Your task to perform on an android device: Open the phone app and click the voicemail tab. Image 0: 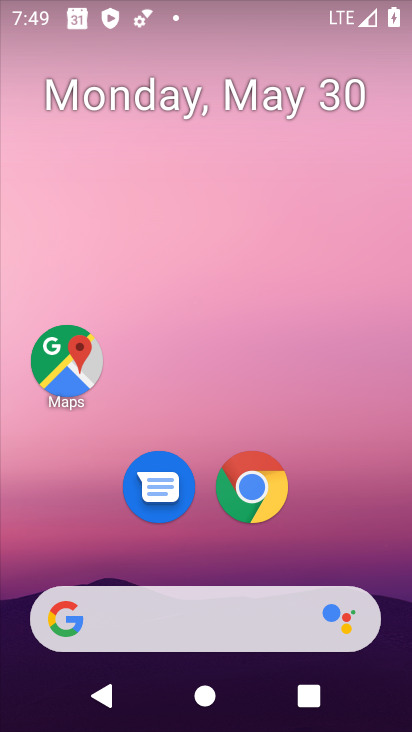
Step 0: click (340, 417)
Your task to perform on an android device: Open the phone app and click the voicemail tab. Image 1: 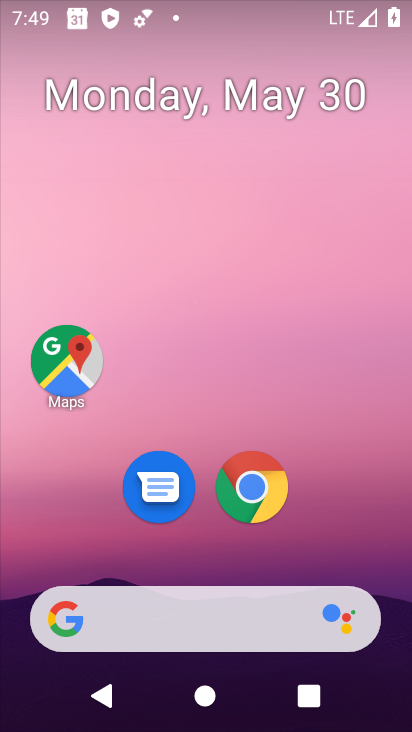
Step 1: drag from (375, 699) to (303, 134)
Your task to perform on an android device: Open the phone app and click the voicemail tab. Image 2: 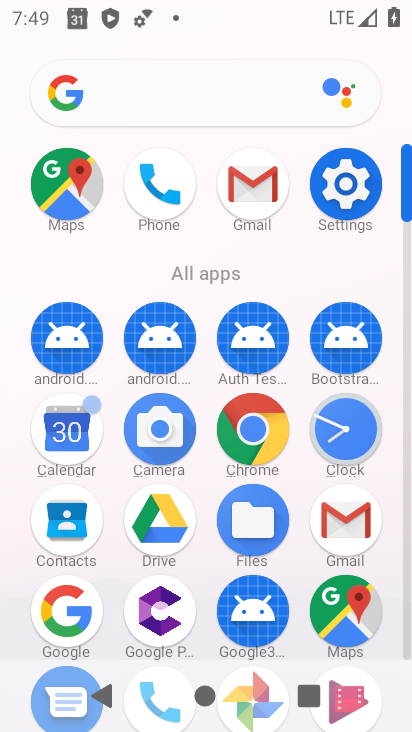
Step 2: click (151, 189)
Your task to perform on an android device: Open the phone app and click the voicemail tab. Image 3: 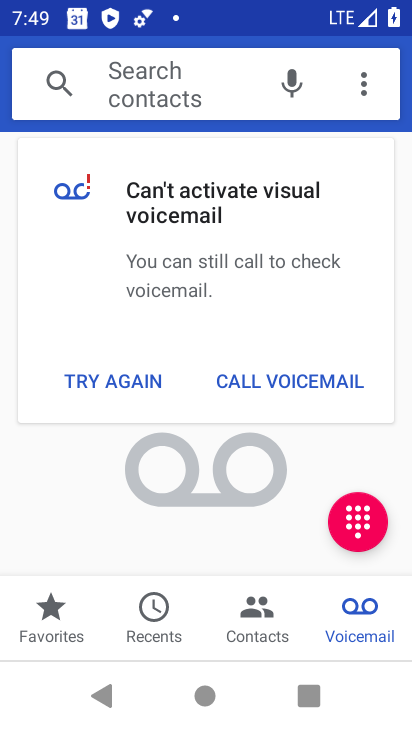
Step 3: click (357, 633)
Your task to perform on an android device: Open the phone app and click the voicemail tab. Image 4: 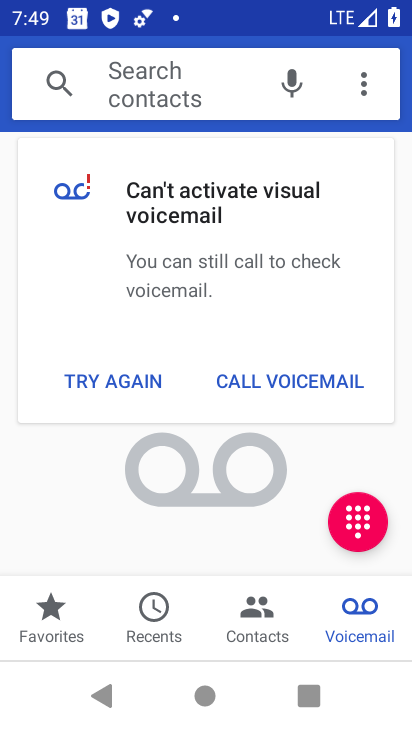
Step 4: task complete